Your task to perform on an android device: Go to Reddit.com Image 0: 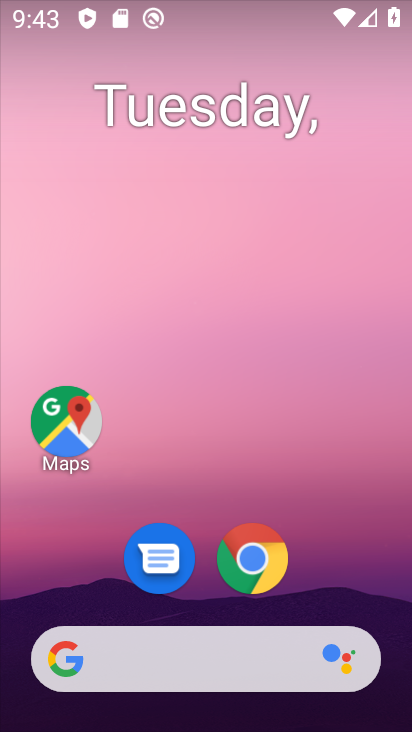
Step 0: drag from (329, 619) to (146, 50)
Your task to perform on an android device: Go to Reddit.com Image 1: 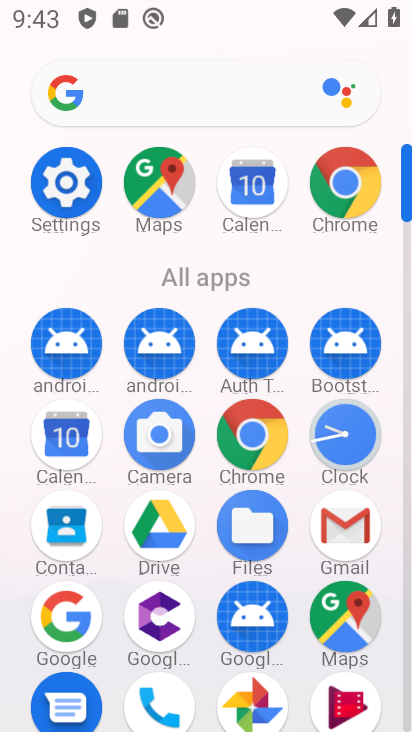
Step 1: click (256, 441)
Your task to perform on an android device: Go to Reddit.com Image 2: 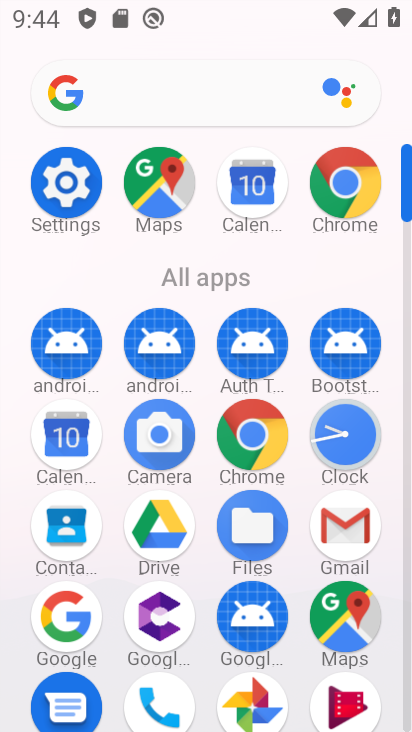
Step 2: click (256, 441)
Your task to perform on an android device: Go to Reddit.com Image 3: 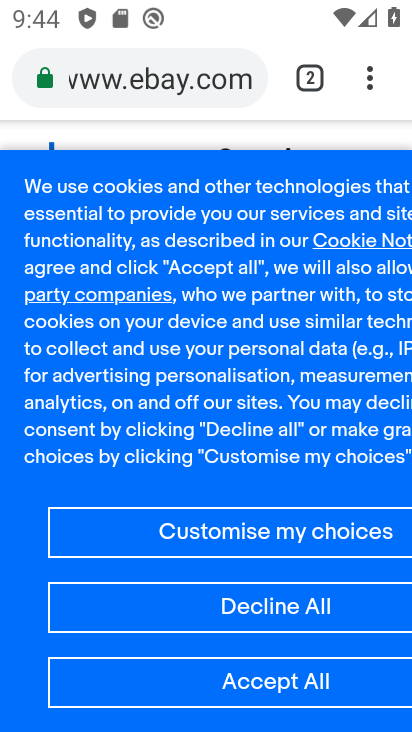
Step 3: press back button
Your task to perform on an android device: Go to Reddit.com Image 4: 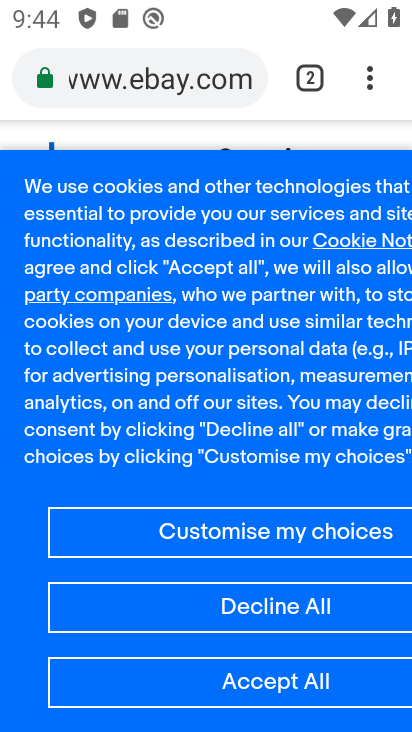
Step 4: press back button
Your task to perform on an android device: Go to Reddit.com Image 5: 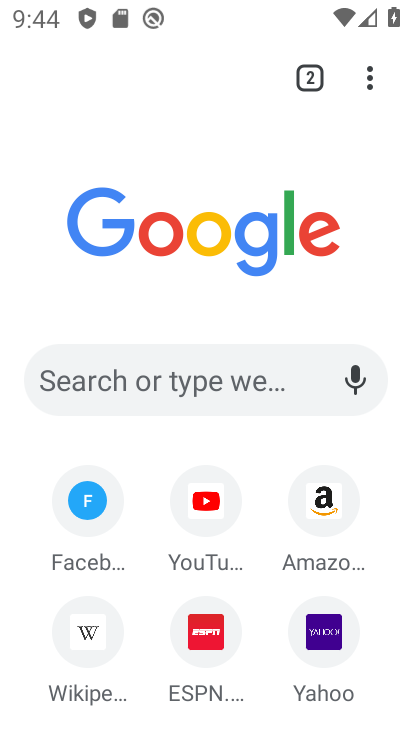
Step 5: press back button
Your task to perform on an android device: Go to Reddit.com Image 6: 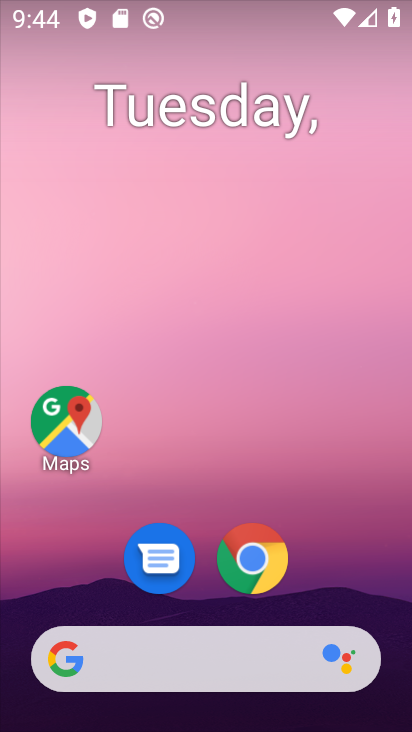
Step 6: drag from (305, 681) to (214, 146)
Your task to perform on an android device: Go to Reddit.com Image 7: 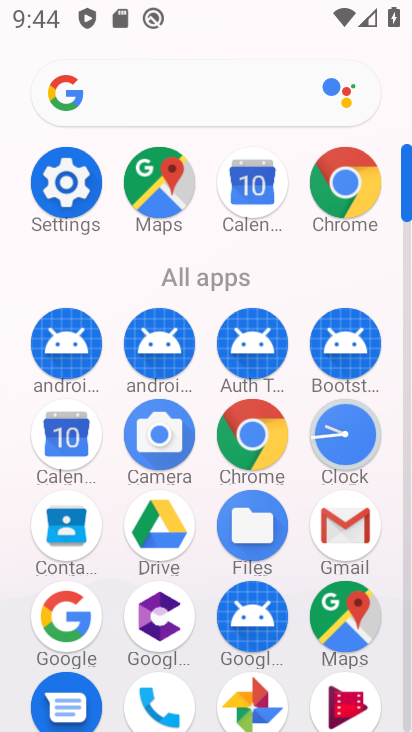
Step 7: click (342, 193)
Your task to perform on an android device: Go to Reddit.com Image 8: 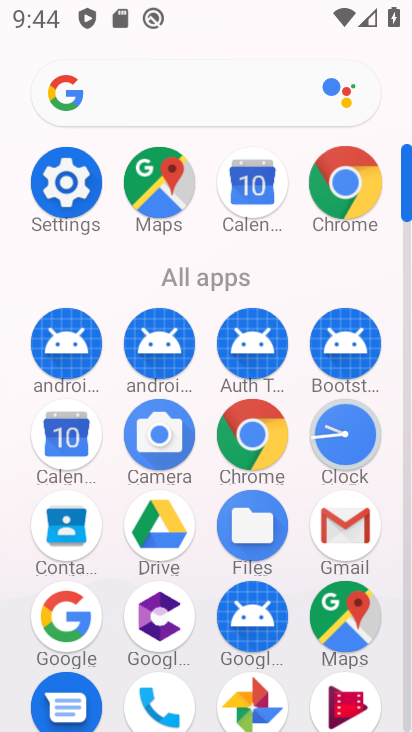
Step 8: click (342, 191)
Your task to perform on an android device: Go to Reddit.com Image 9: 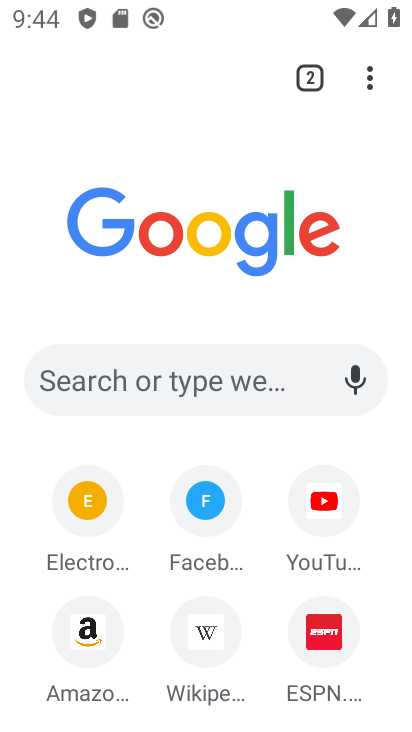
Step 9: click (81, 381)
Your task to perform on an android device: Go to Reddit.com Image 10: 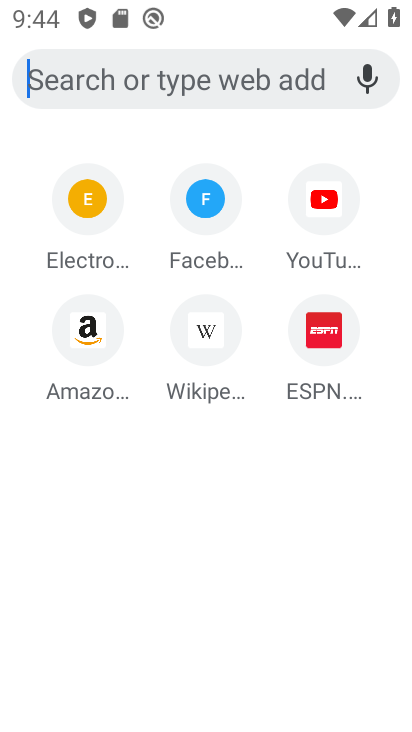
Step 10: click (81, 377)
Your task to perform on an android device: Go to Reddit.com Image 11: 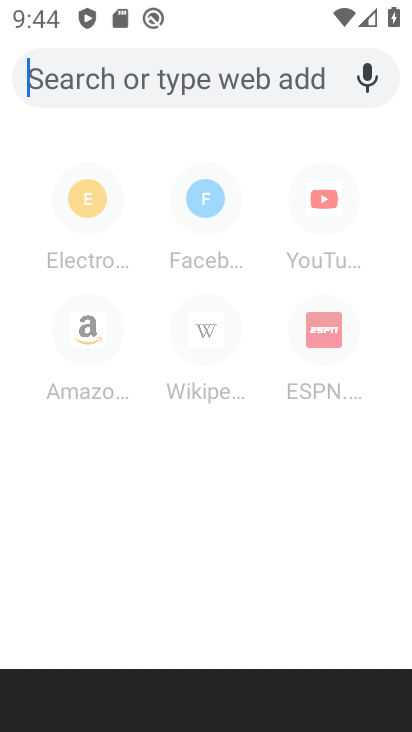
Step 11: click (83, 375)
Your task to perform on an android device: Go to Reddit.com Image 12: 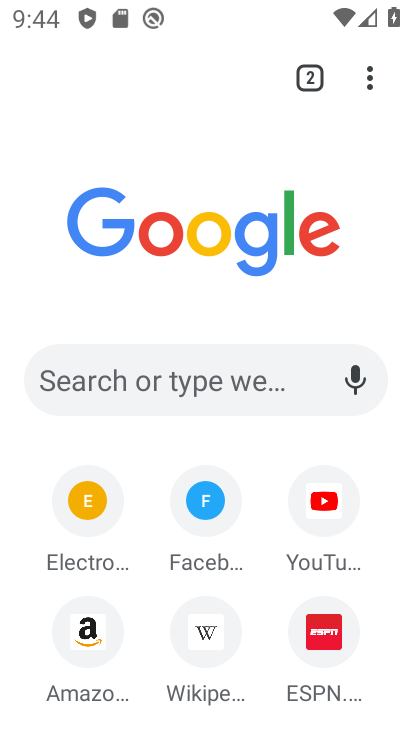
Step 12: click (88, 376)
Your task to perform on an android device: Go to Reddit.com Image 13: 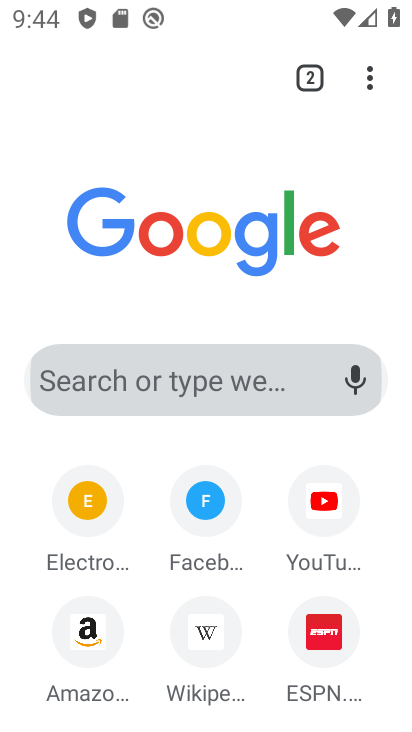
Step 13: click (88, 376)
Your task to perform on an android device: Go to Reddit.com Image 14: 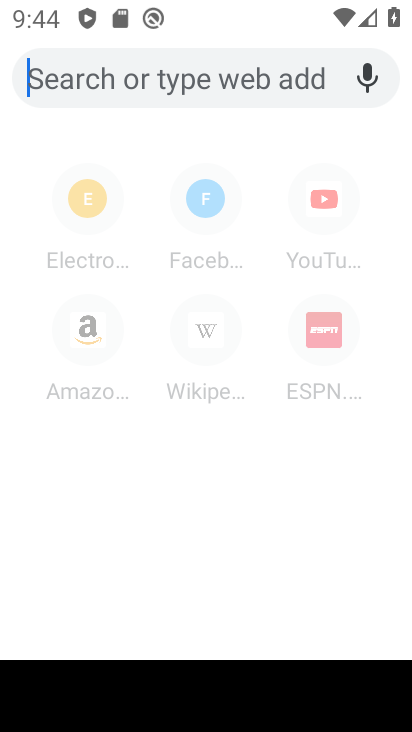
Step 14: type "reddit.com"
Your task to perform on an android device: Go to Reddit.com Image 15: 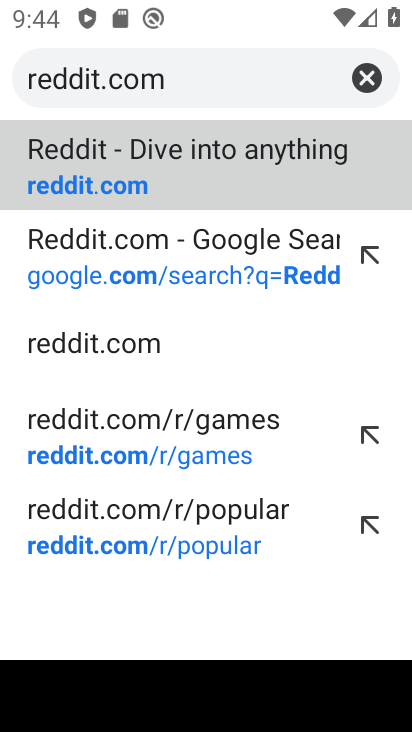
Step 15: click (62, 185)
Your task to perform on an android device: Go to Reddit.com Image 16: 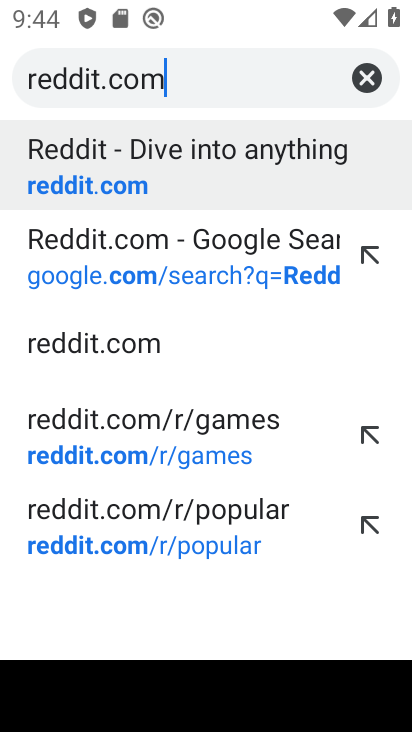
Step 16: click (62, 185)
Your task to perform on an android device: Go to Reddit.com Image 17: 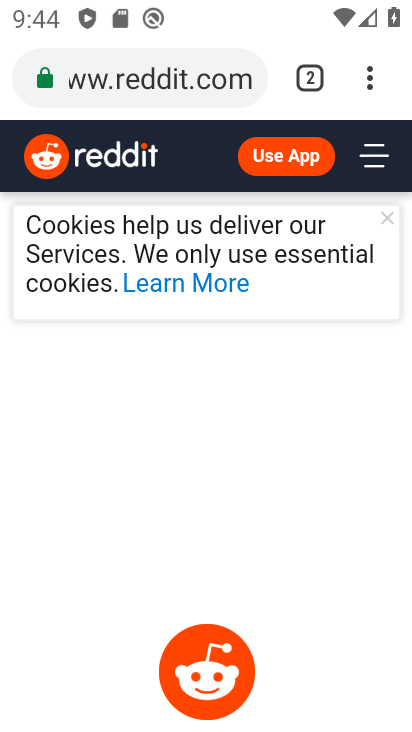
Step 17: task complete